Your task to perform on an android device: turn on sleep mode Image 0: 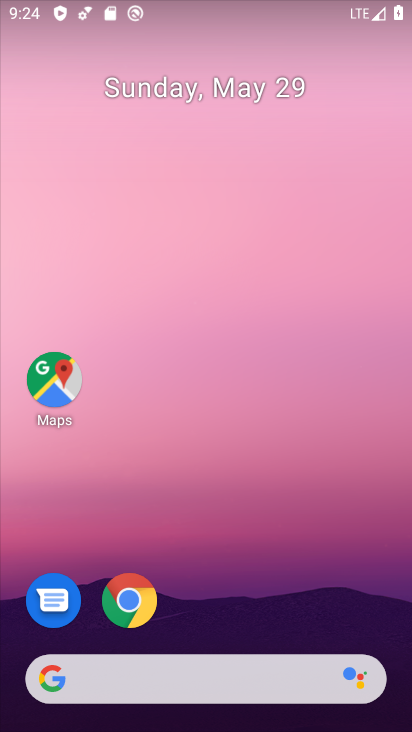
Step 0: drag from (257, 623) to (238, 137)
Your task to perform on an android device: turn on sleep mode Image 1: 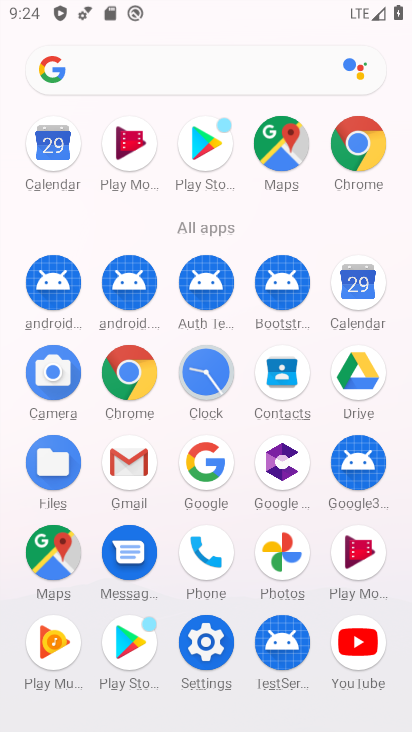
Step 1: click (217, 634)
Your task to perform on an android device: turn on sleep mode Image 2: 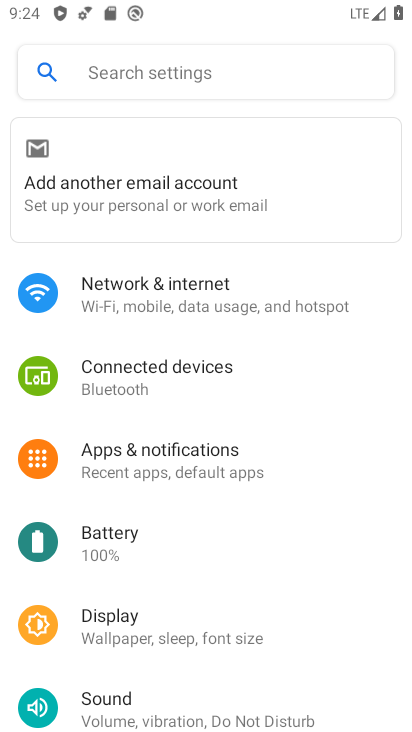
Step 2: click (159, 625)
Your task to perform on an android device: turn on sleep mode Image 3: 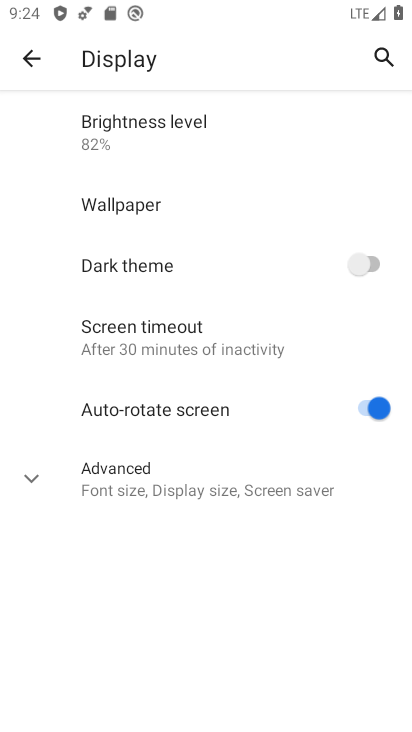
Step 3: task complete